Your task to perform on an android device: toggle airplane mode Image 0: 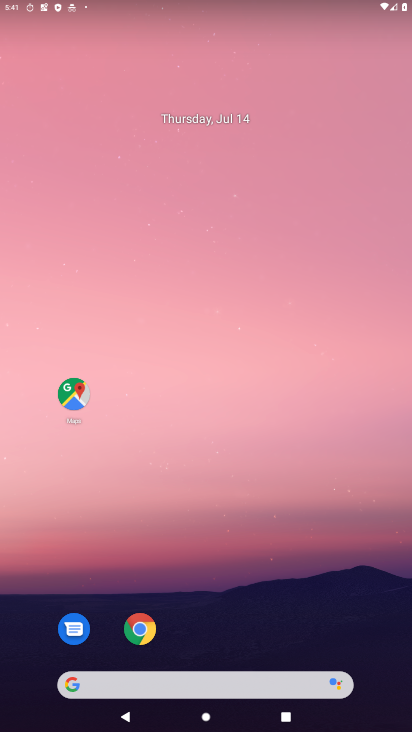
Step 0: drag from (329, 682) to (320, 6)
Your task to perform on an android device: toggle airplane mode Image 1: 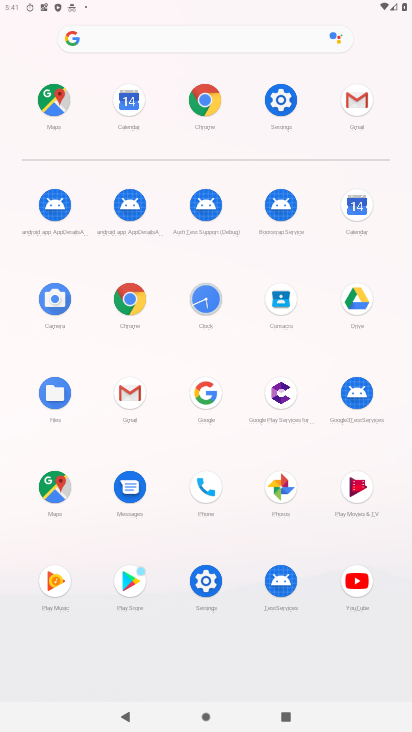
Step 1: click (280, 95)
Your task to perform on an android device: toggle airplane mode Image 2: 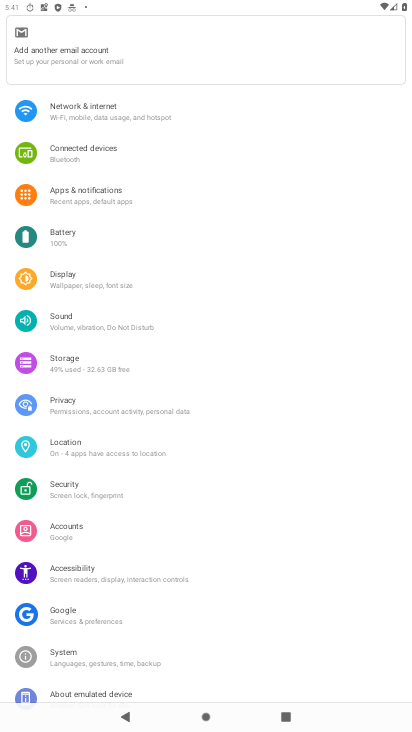
Step 2: click (130, 118)
Your task to perform on an android device: toggle airplane mode Image 3: 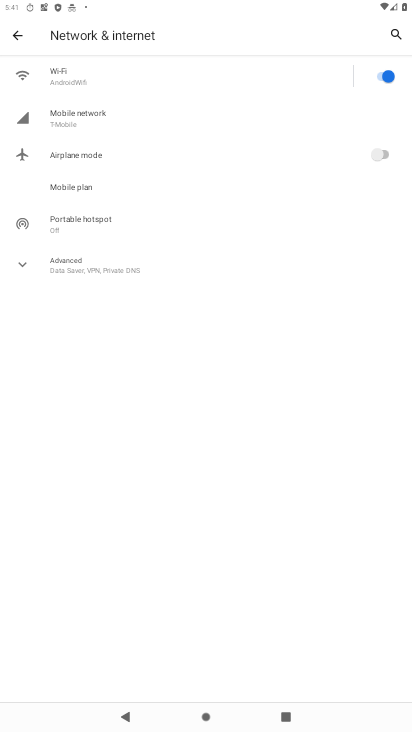
Step 3: click (386, 153)
Your task to perform on an android device: toggle airplane mode Image 4: 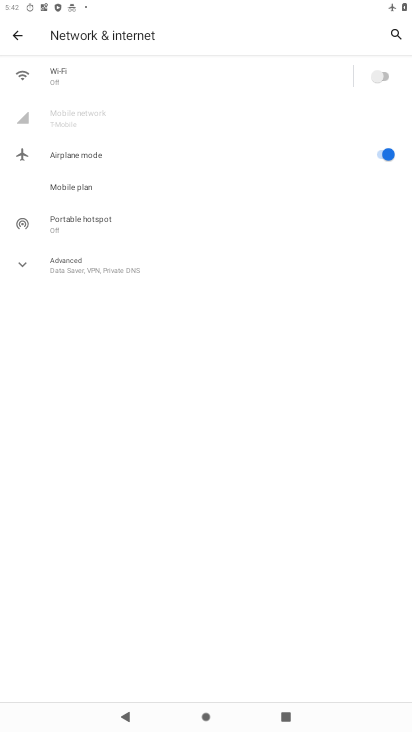
Step 4: task complete